Your task to perform on an android device: change the clock display to show seconds Image 0: 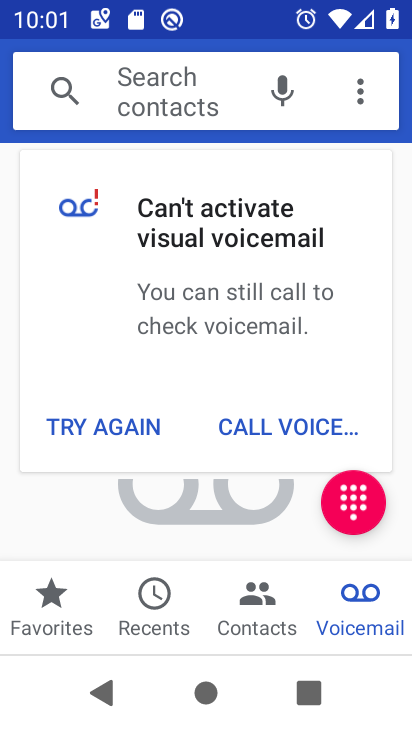
Step 0: drag from (180, 507) to (186, 95)
Your task to perform on an android device: change the clock display to show seconds Image 1: 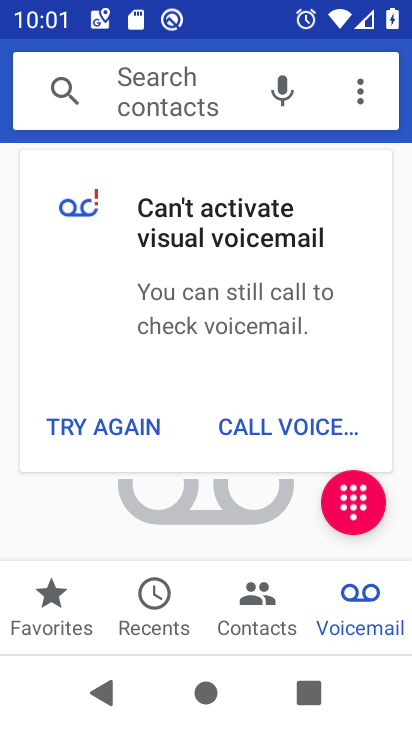
Step 1: drag from (206, 523) to (249, 47)
Your task to perform on an android device: change the clock display to show seconds Image 2: 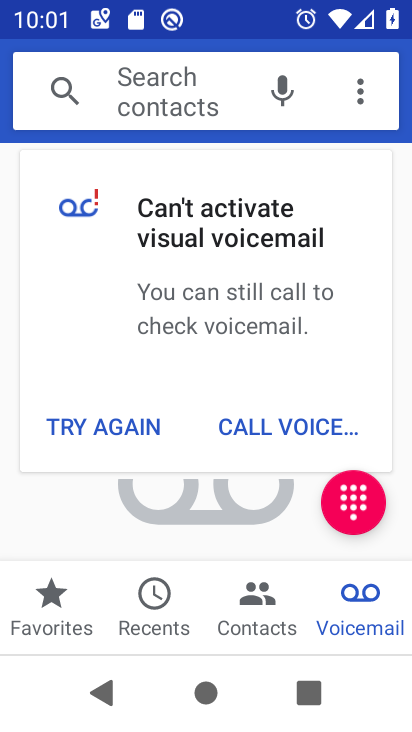
Step 2: drag from (179, 516) to (252, 186)
Your task to perform on an android device: change the clock display to show seconds Image 3: 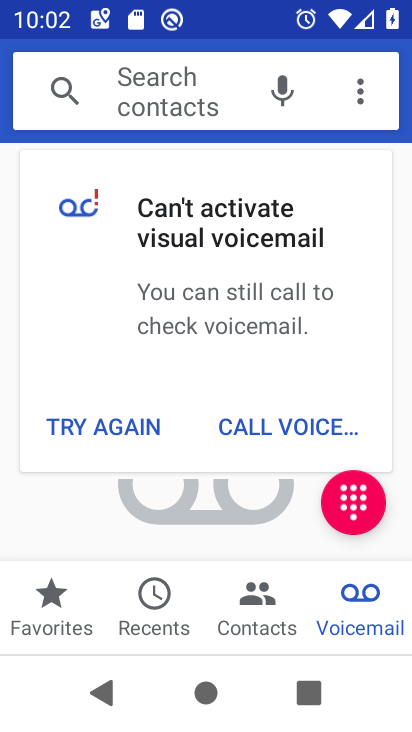
Step 3: drag from (217, 567) to (213, 321)
Your task to perform on an android device: change the clock display to show seconds Image 4: 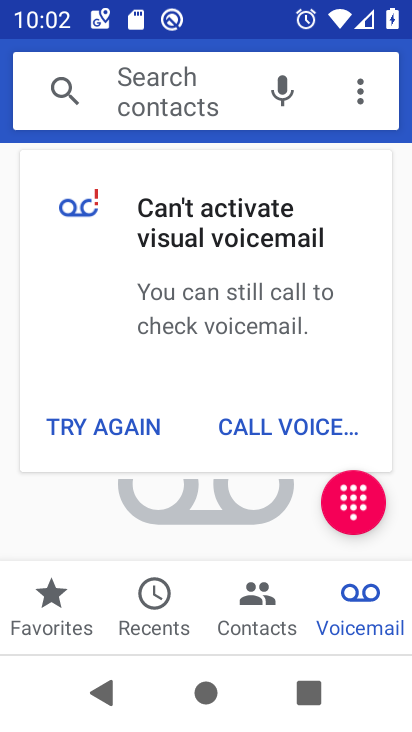
Step 4: press home button
Your task to perform on an android device: change the clock display to show seconds Image 5: 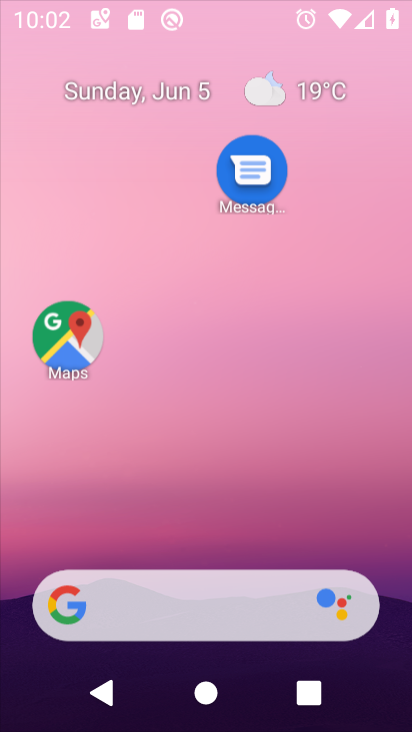
Step 5: drag from (222, 489) to (243, 12)
Your task to perform on an android device: change the clock display to show seconds Image 6: 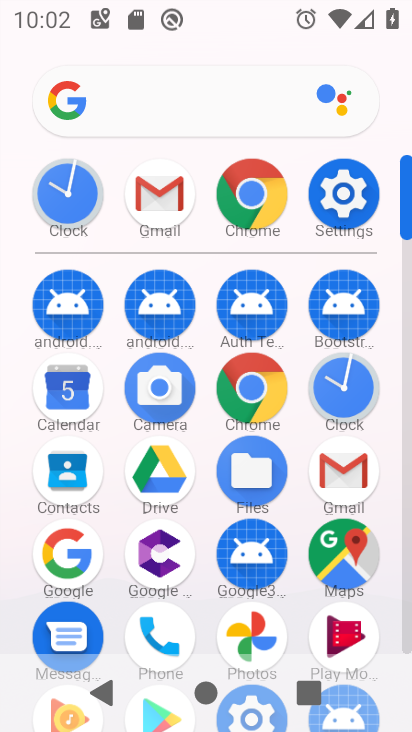
Step 6: click (342, 383)
Your task to perform on an android device: change the clock display to show seconds Image 7: 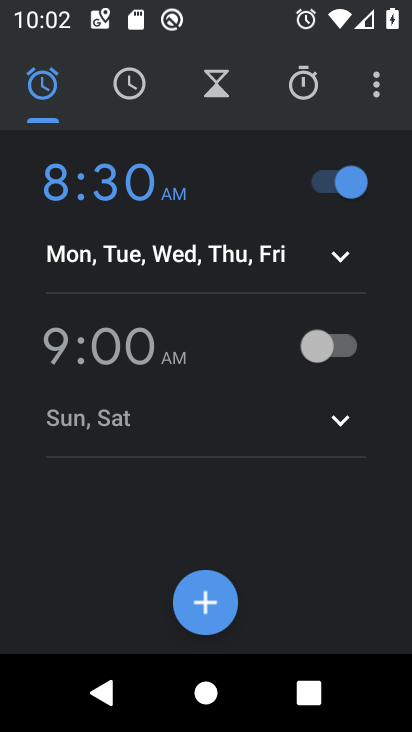
Step 7: click (372, 85)
Your task to perform on an android device: change the clock display to show seconds Image 8: 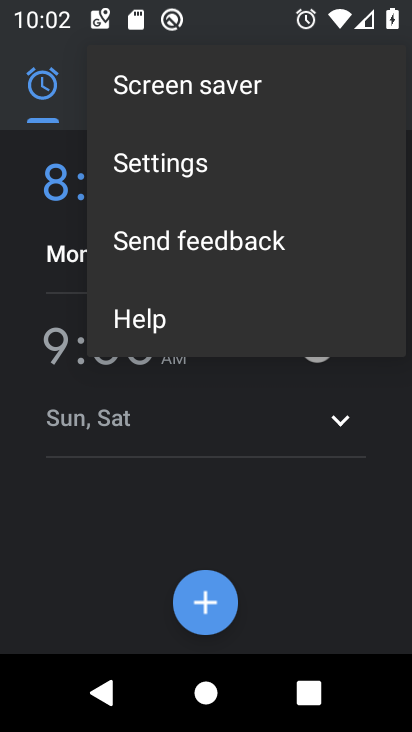
Step 8: click (211, 161)
Your task to perform on an android device: change the clock display to show seconds Image 9: 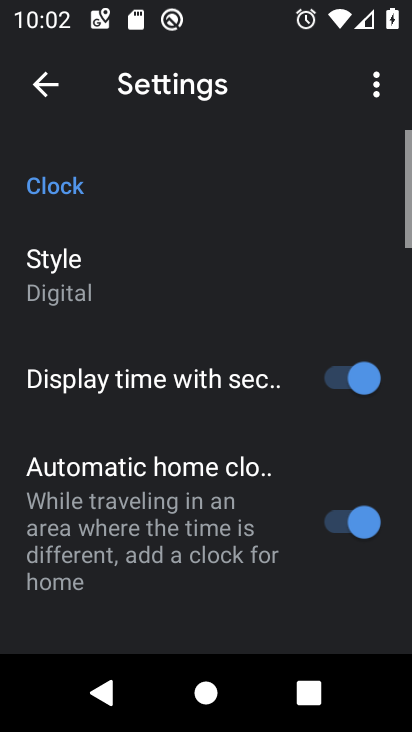
Step 9: click (83, 279)
Your task to perform on an android device: change the clock display to show seconds Image 10: 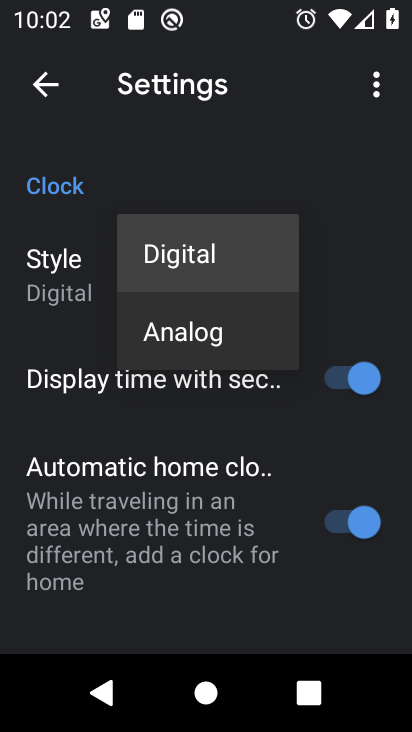
Step 10: click (81, 489)
Your task to perform on an android device: change the clock display to show seconds Image 11: 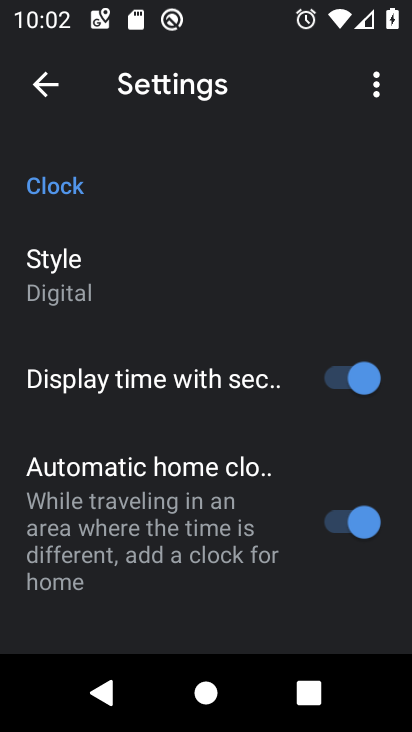
Step 11: click (354, 383)
Your task to perform on an android device: change the clock display to show seconds Image 12: 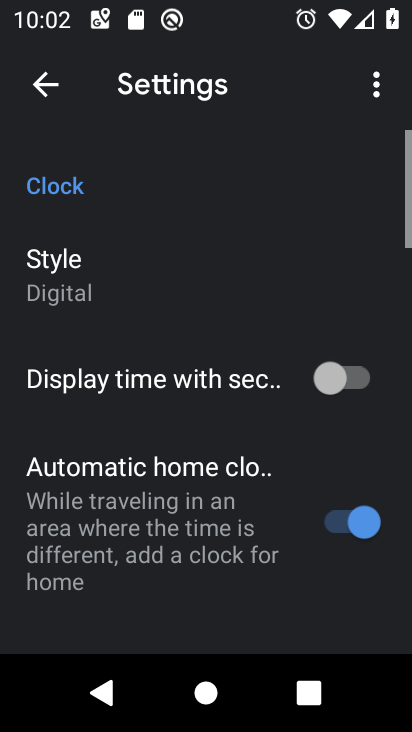
Step 12: task complete